Your task to perform on an android device: Open Chrome and go to settings Image 0: 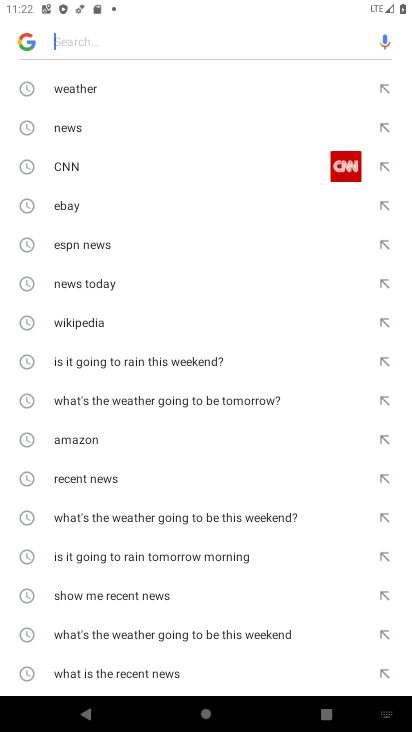
Step 0: press home button
Your task to perform on an android device: Open Chrome and go to settings Image 1: 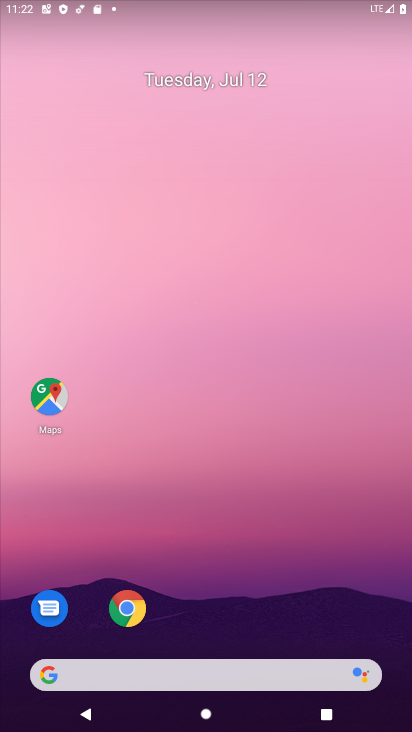
Step 1: click (131, 605)
Your task to perform on an android device: Open Chrome and go to settings Image 2: 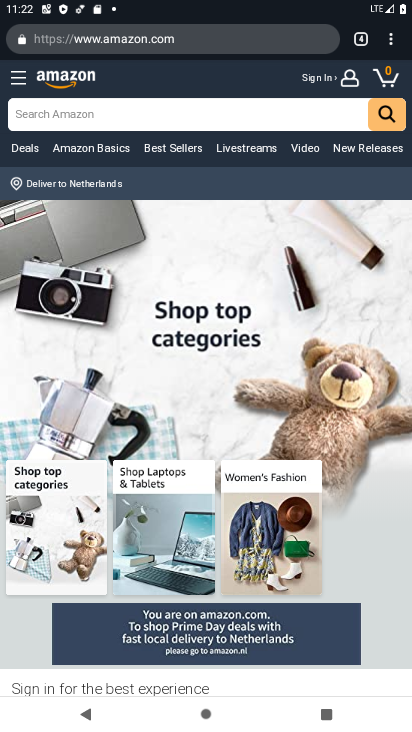
Step 2: click (399, 44)
Your task to perform on an android device: Open Chrome and go to settings Image 3: 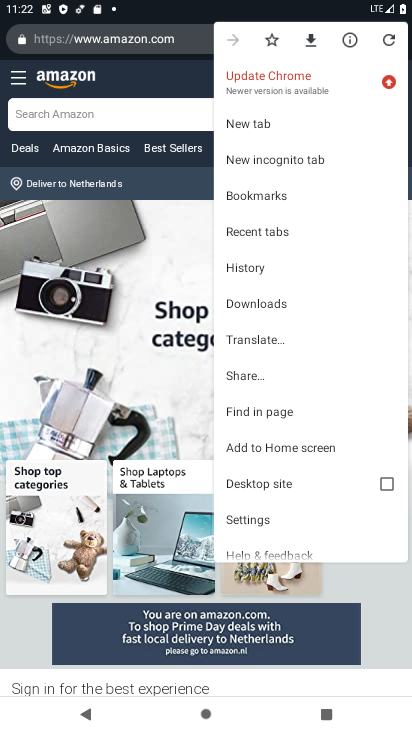
Step 3: click (241, 535)
Your task to perform on an android device: Open Chrome and go to settings Image 4: 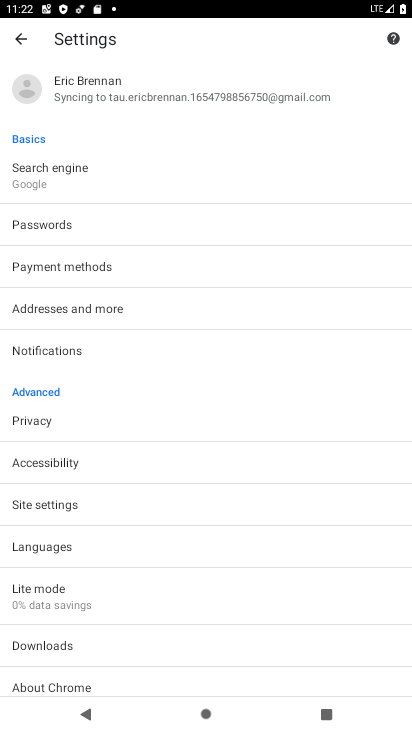
Step 4: task complete